Your task to perform on an android device: turn off location Image 0: 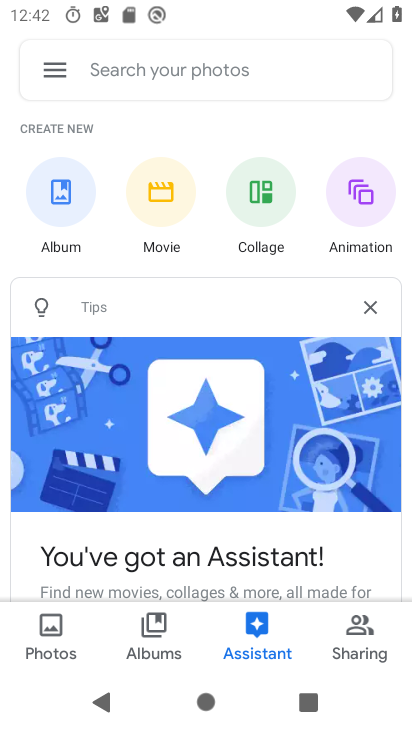
Step 0: press home button
Your task to perform on an android device: turn off location Image 1: 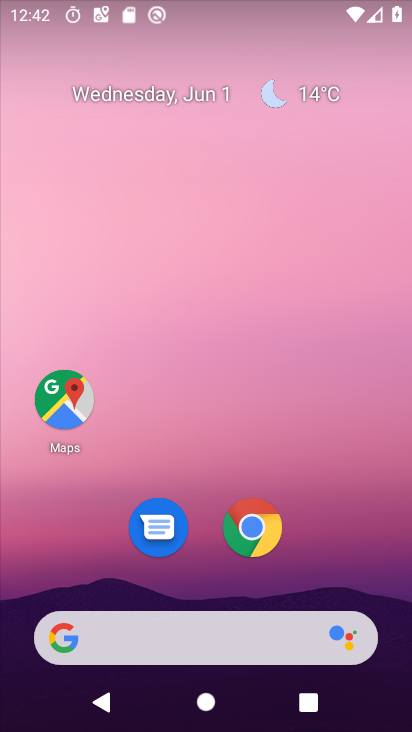
Step 1: drag from (329, 599) to (189, 0)
Your task to perform on an android device: turn off location Image 2: 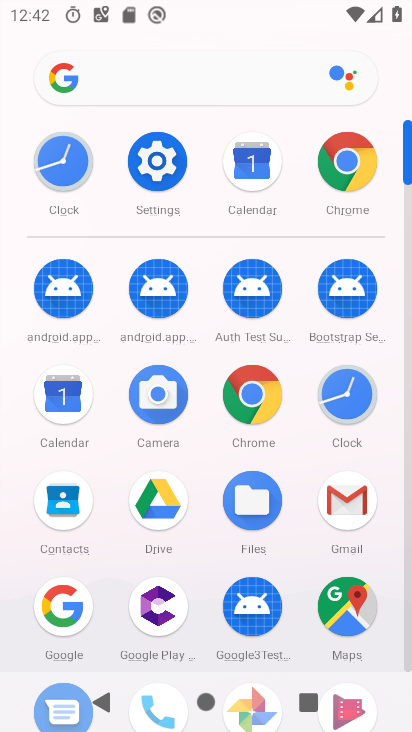
Step 2: click (152, 175)
Your task to perform on an android device: turn off location Image 3: 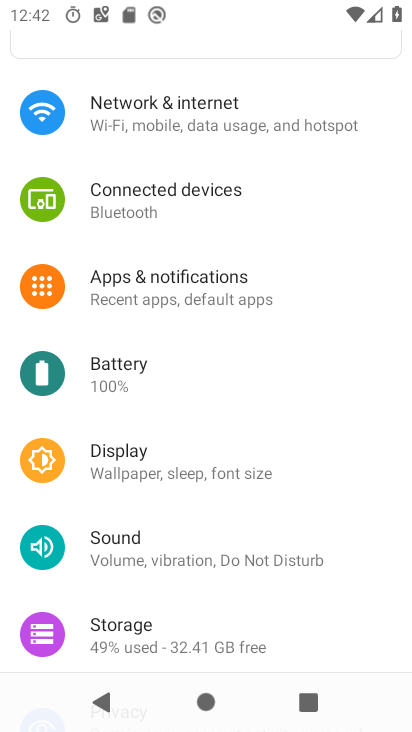
Step 3: drag from (308, 506) to (309, 274)
Your task to perform on an android device: turn off location Image 4: 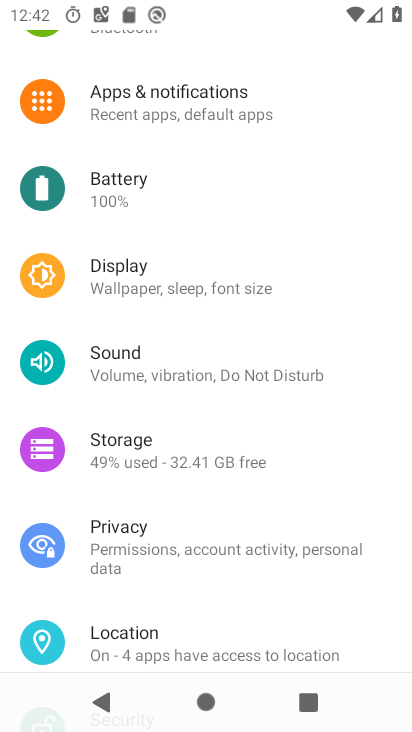
Step 4: drag from (222, 550) to (216, 217)
Your task to perform on an android device: turn off location Image 5: 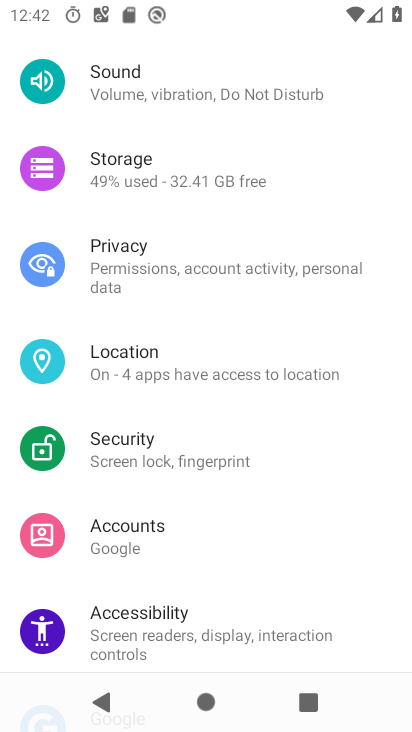
Step 5: click (129, 368)
Your task to perform on an android device: turn off location Image 6: 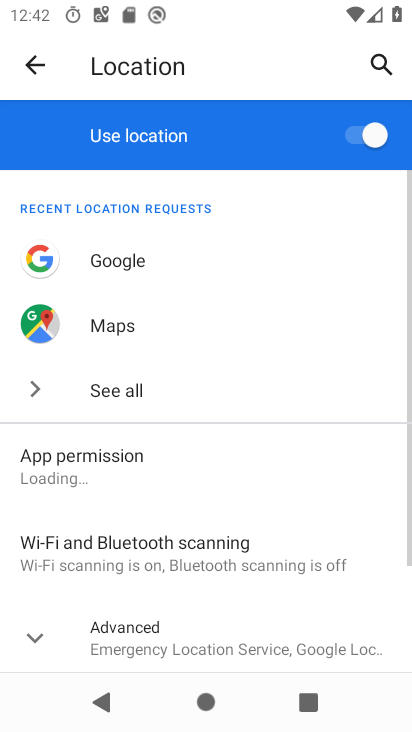
Step 6: click (353, 128)
Your task to perform on an android device: turn off location Image 7: 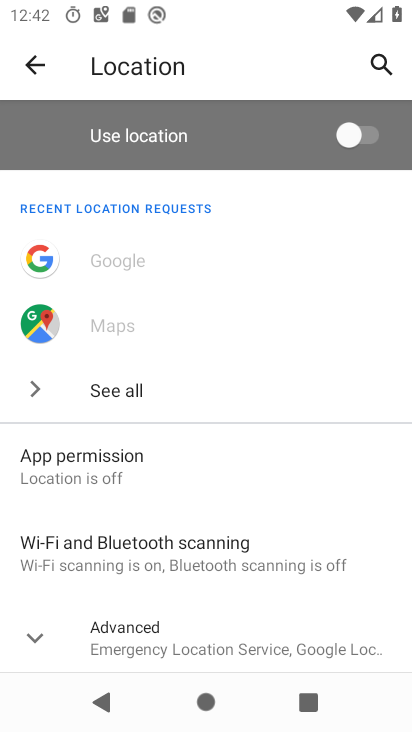
Step 7: task complete